Your task to perform on an android device: empty trash in the gmail app Image 0: 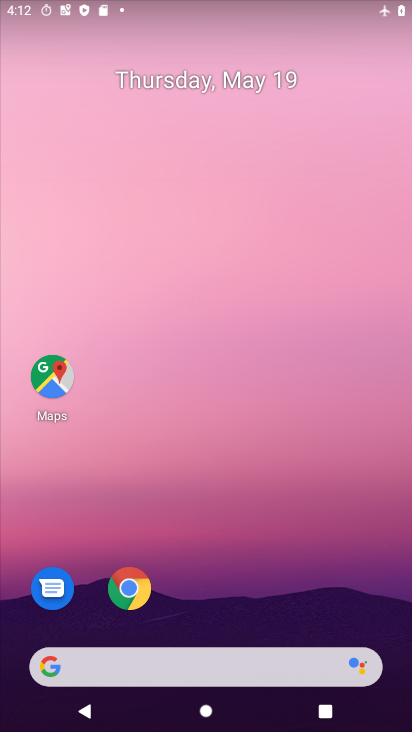
Step 0: drag from (205, 301) to (203, 48)
Your task to perform on an android device: empty trash in the gmail app Image 1: 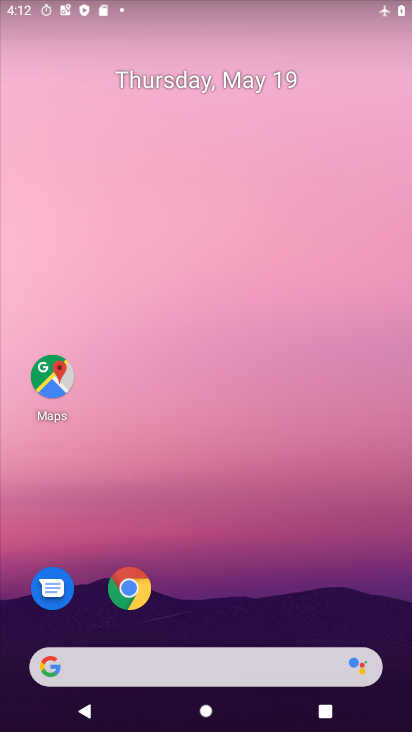
Step 1: drag from (221, 622) to (286, 4)
Your task to perform on an android device: empty trash in the gmail app Image 2: 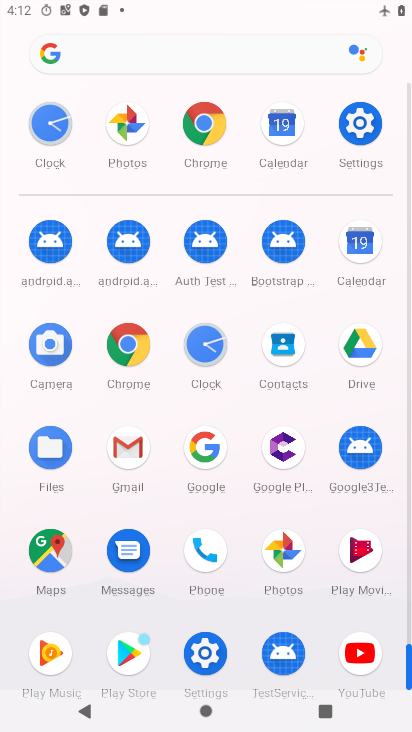
Step 2: click (127, 448)
Your task to perform on an android device: empty trash in the gmail app Image 3: 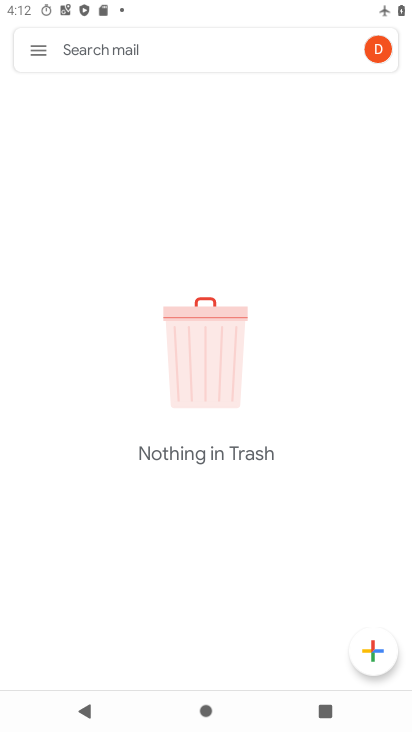
Step 3: task complete